Your task to perform on an android device: set the timer Image 0: 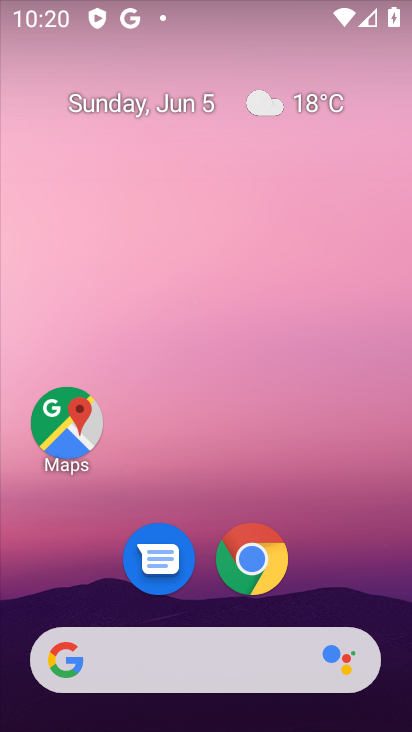
Step 0: press home button
Your task to perform on an android device: set the timer Image 1: 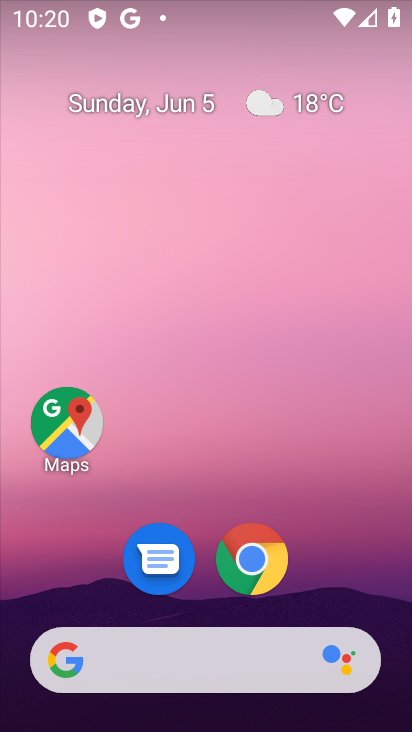
Step 1: drag from (388, 691) to (410, 57)
Your task to perform on an android device: set the timer Image 2: 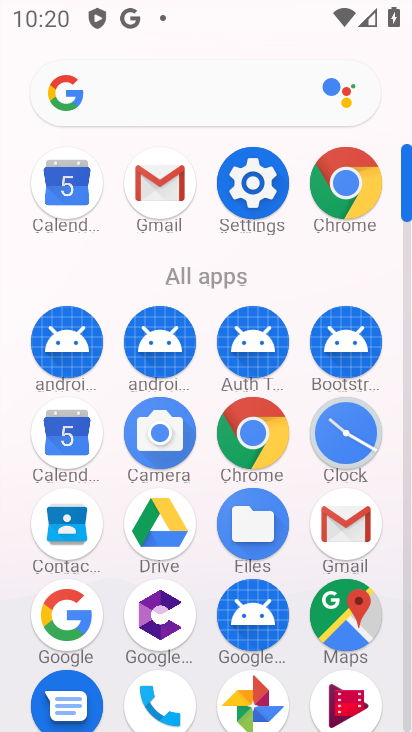
Step 2: click (266, 171)
Your task to perform on an android device: set the timer Image 3: 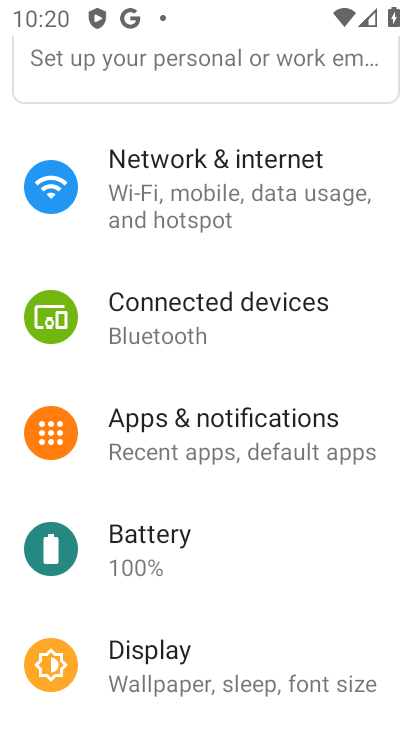
Step 3: press home button
Your task to perform on an android device: set the timer Image 4: 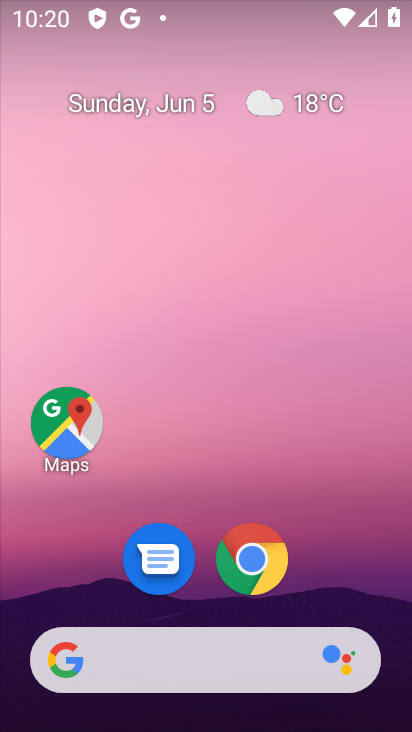
Step 4: drag from (397, 413) to (392, 339)
Your task to perform on an android device: set the timer Image 5: 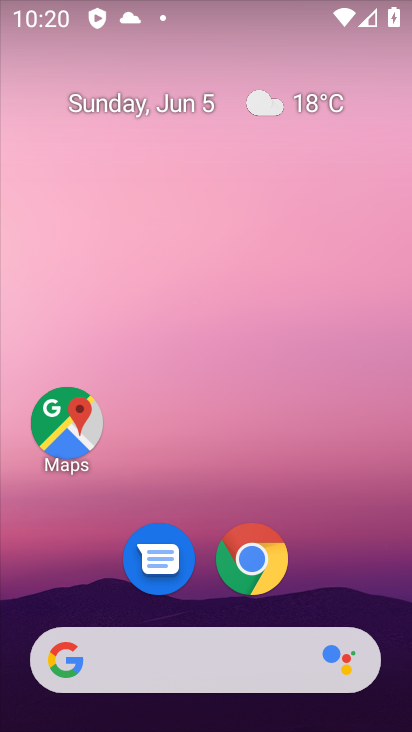
Step 5: drag from (397, 533) to (357, 25)
Your task to perform on an android device: set the timer Image 6: 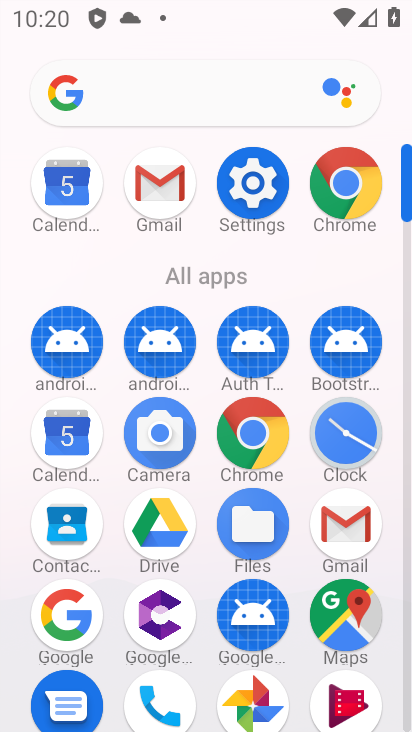
Step 6: click (332, 446)
Your task to perform on an android device: set the timer Image 7: 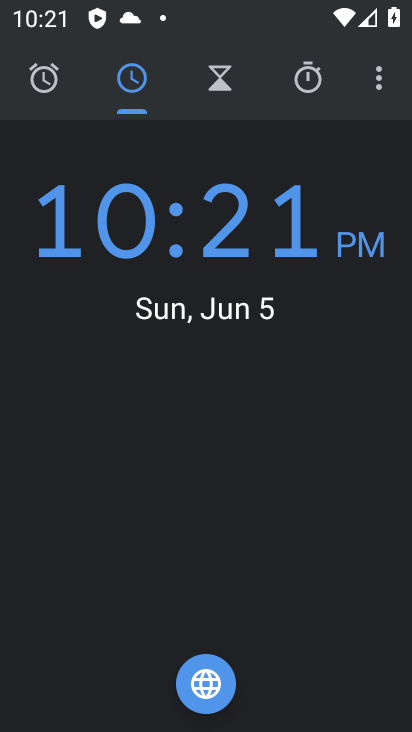
Step 7: click (229, 77)
Your task to perform on an android device: set the timer Image 8: 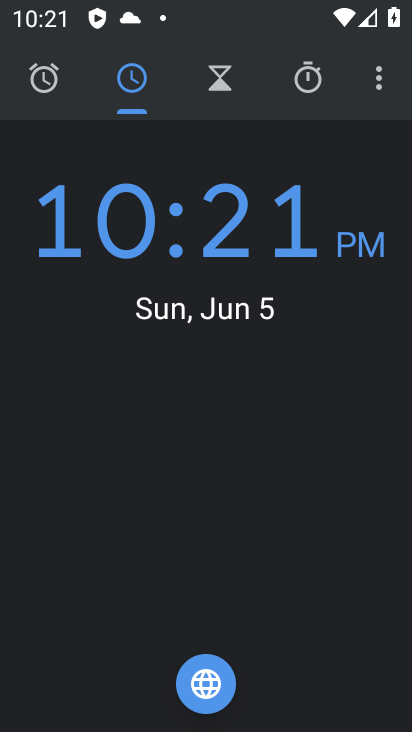
Step 8: click (218, 76)
Your task to perform on an android device: set the timer Image 9: 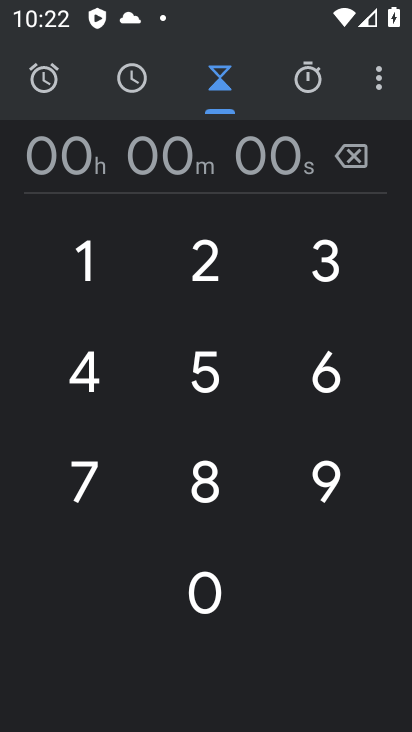
Step 9: click (211, 469)
Your task to perform on an android device: set the timer Image 10: 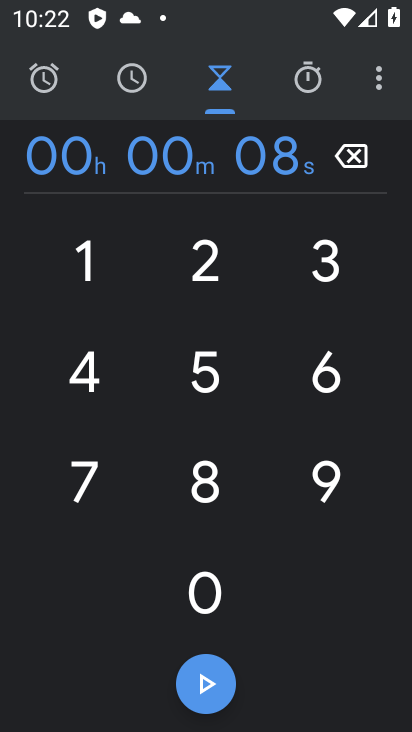
Step 10: click (187, 692)
Your task to perform on an android device: set the timer Image 11: 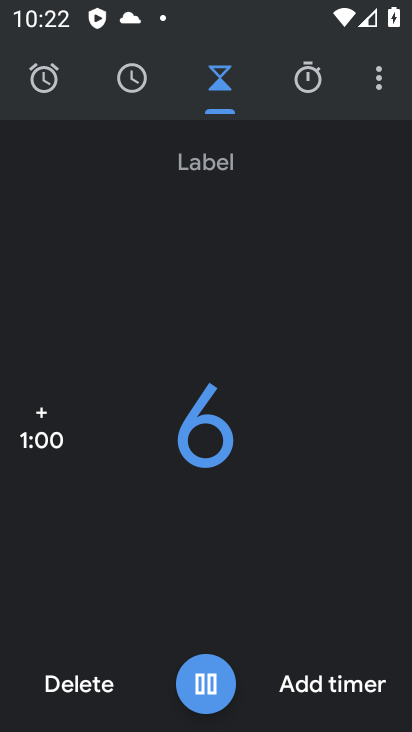
Step 11: task complete